Your task to perform on an android device: turn on airplane mode Image 0: 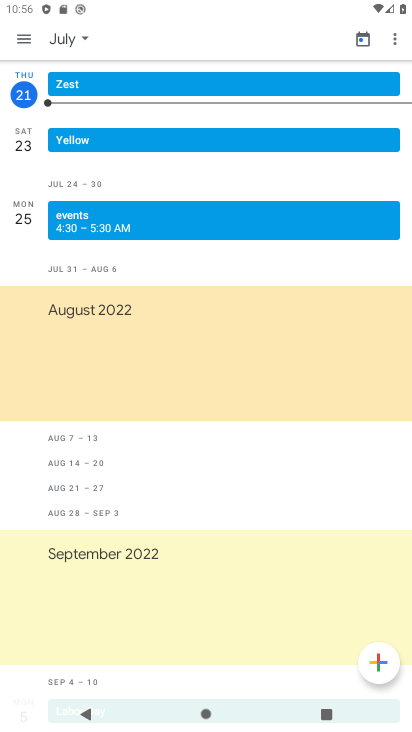
Step 0: drag from (365, 5) to (327, 631)
Your task to perform on an android device: turn on airplane mode Image 1: 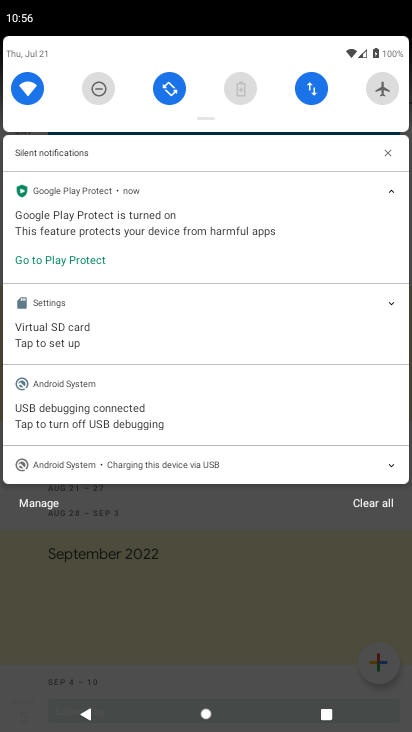
Step 1: click (378, 82)
Your task to perform on an android device: turn on airplane mode Image 2: 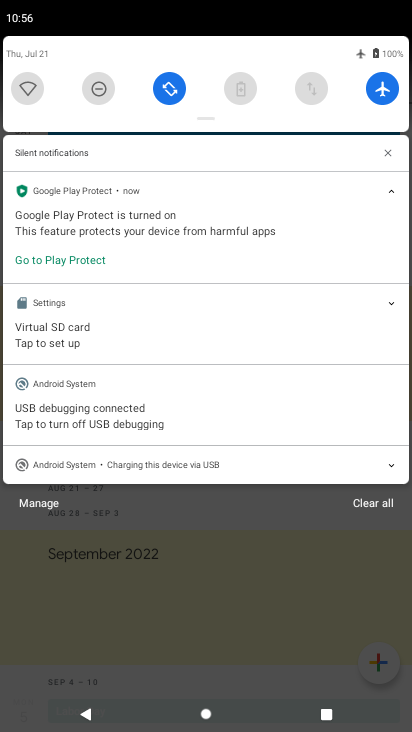
Step 2: task complete